Your task to perform on an android device: Open maps Image 0: 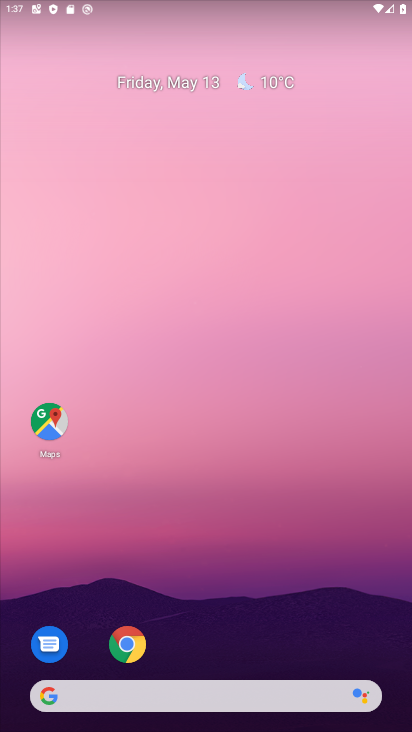
Step 0: drag from (251, 678) to (261, 83)
Your task to perform on an android device: Open maps Image 1: 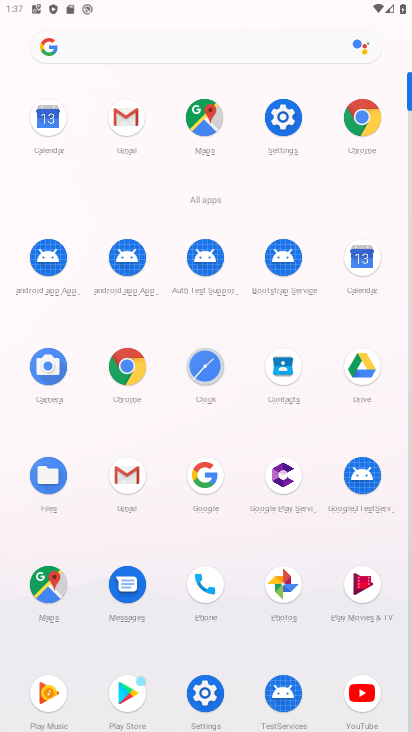
Step 1: click (43, 588)
Your task to perform on an android device: Open maps Image 2: 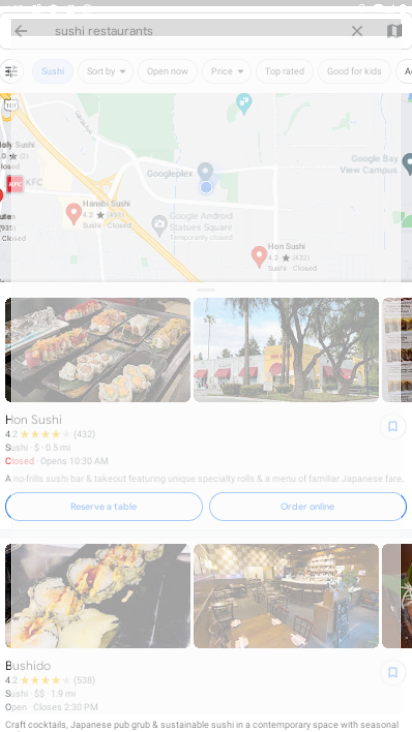
Step 2: task complete